Your task to perform on an android device: check google app version Image 0: 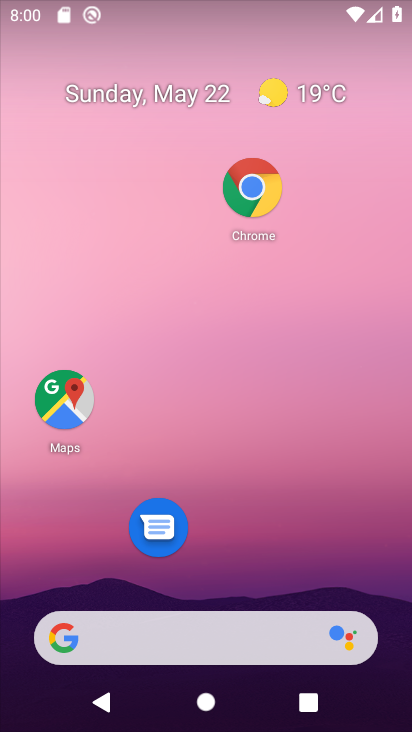
Step 0: drag from (231, 589) to (219, 65)
Your task to perform on an android device: check google app version Image 1: 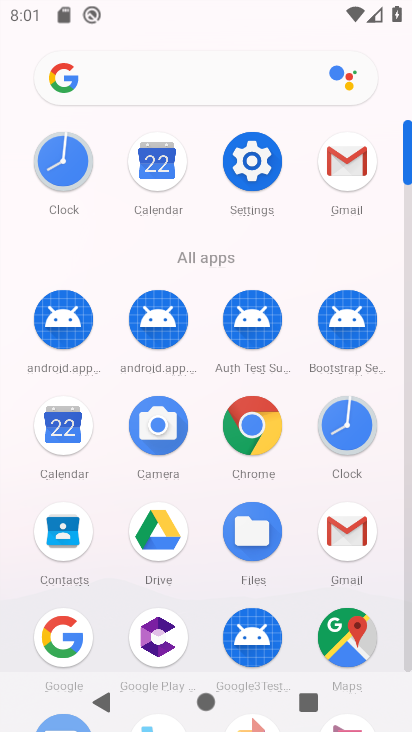
Step 1: click (58, 628)
Your task to perform on an android device: check google app version Image 2: 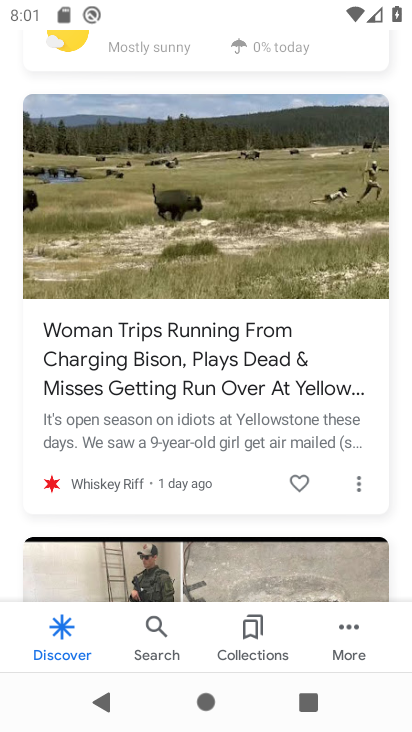
Step 2: task complete